Your task to perform on an android device: turn off wifi Image 0: 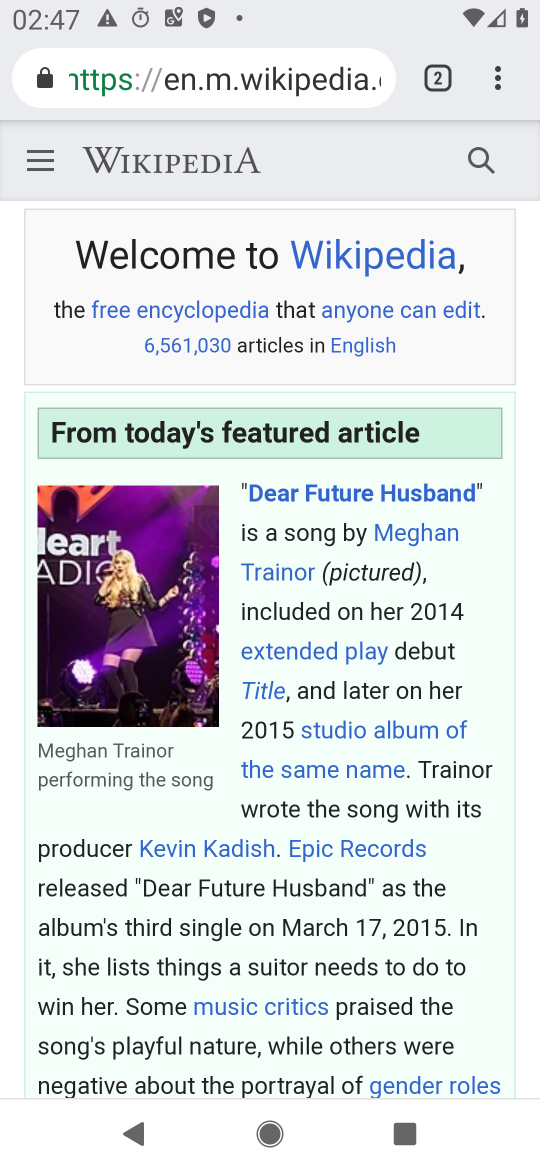
Step 0: press home button
Your task to perform on an android device: turn off wifi Image 1: 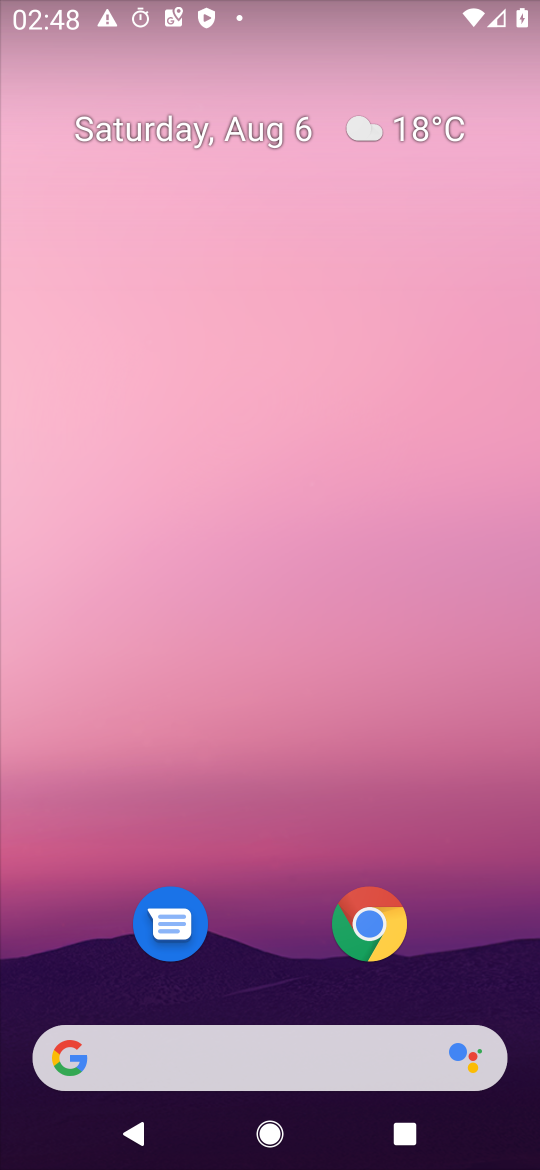
Step 1: drag from (264, 1050) to (210, 237)
Your task to perform on an android device: turn off wifi Image 2: 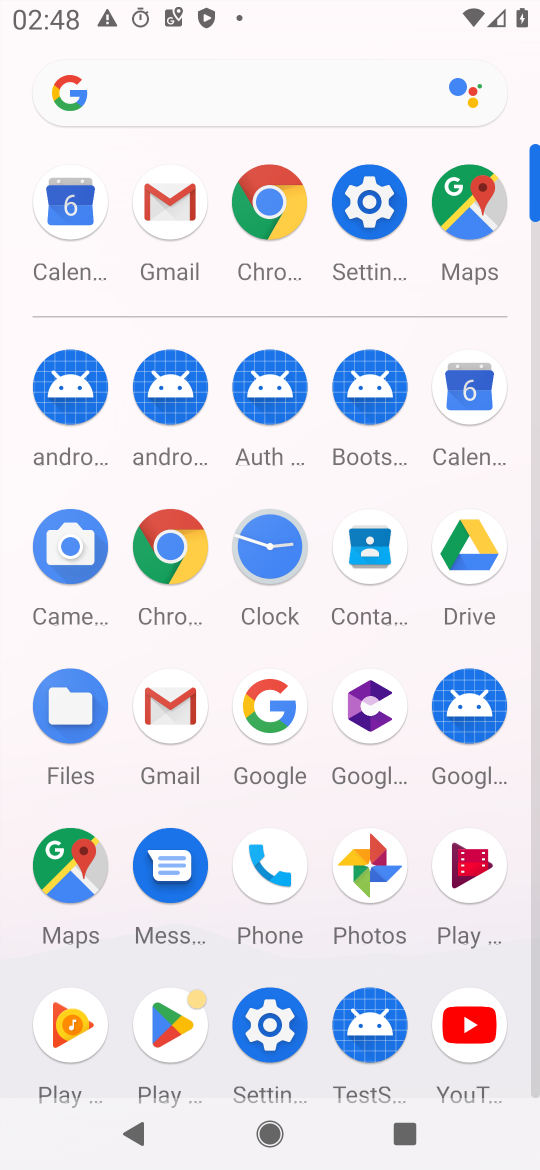
Step 2: click (359, 218)
Your task to perform on an android device: turn off wifi Image 3: 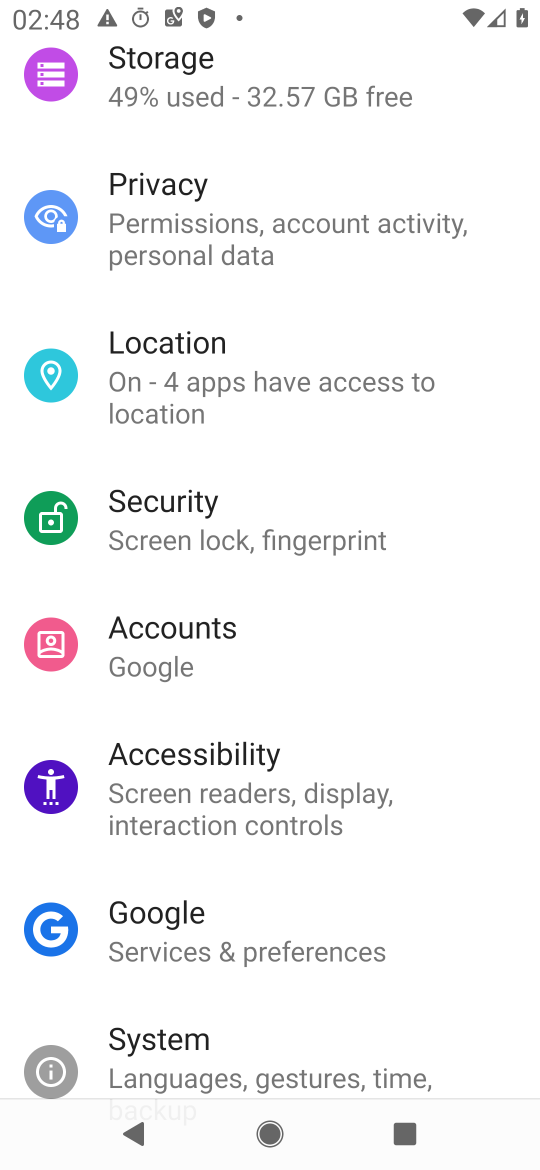
Step 3: drag from (500, 351) to (460, 722)
Your task to perform on an android device: turn off wifi Image 4: 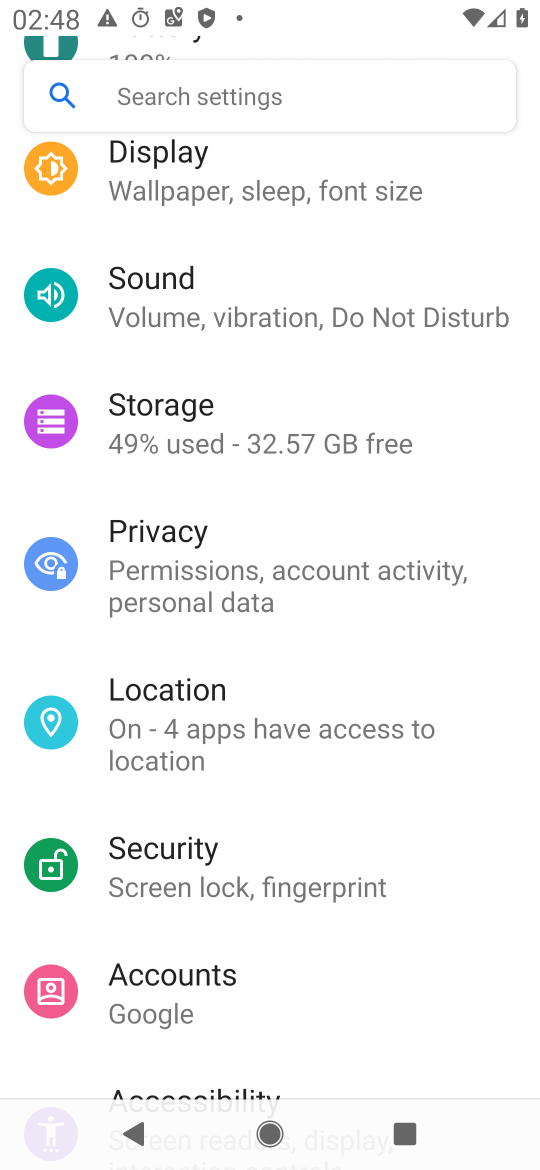
Step 4: drag from (478, 436) to (490, 861)
Your task to perform on an android device: turn off wifi Image 5: 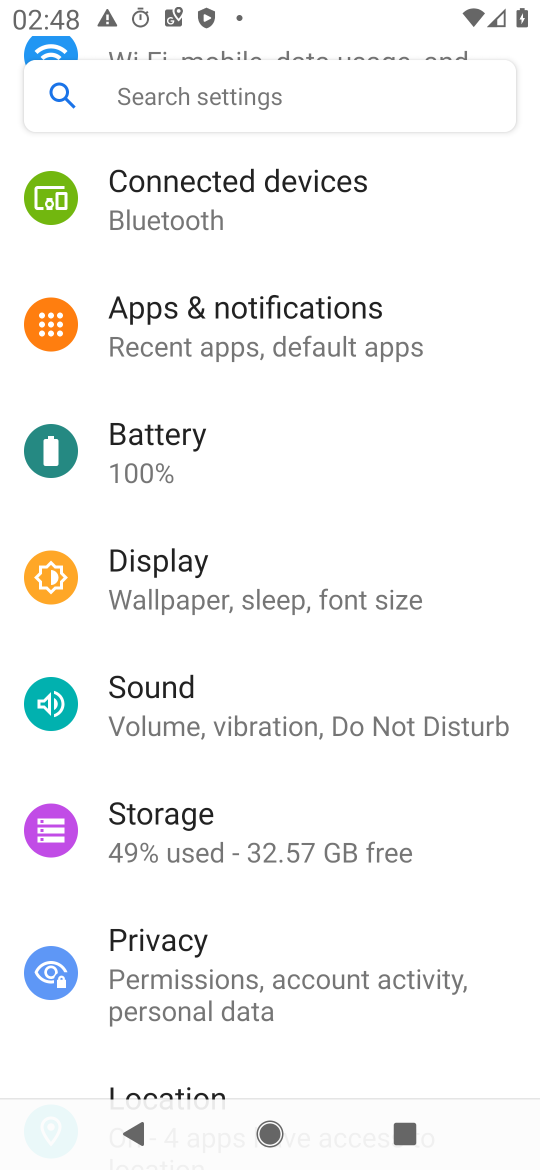
Step 5: drag from (498, 294) to (448, 679)
Your task to perform on an android device: turn off wifi Image 6: 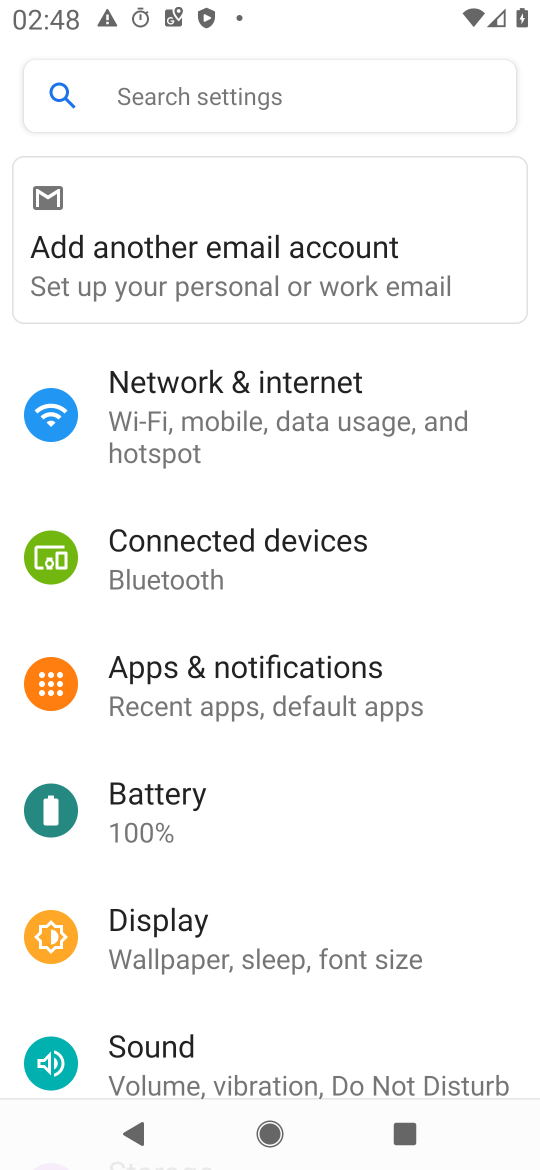
Step 6: click (227, 437)
Your task to perform on an android device: turn off wifi Image 7: 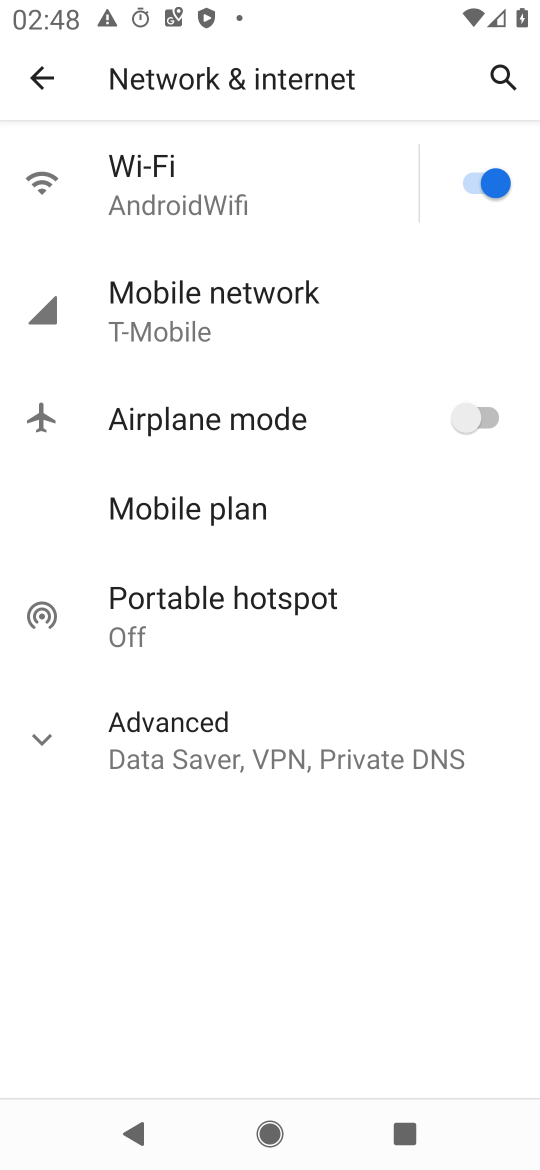
Step 7: click (477, 177)
Your task to perform on an android device: turn off wifi Image 8: 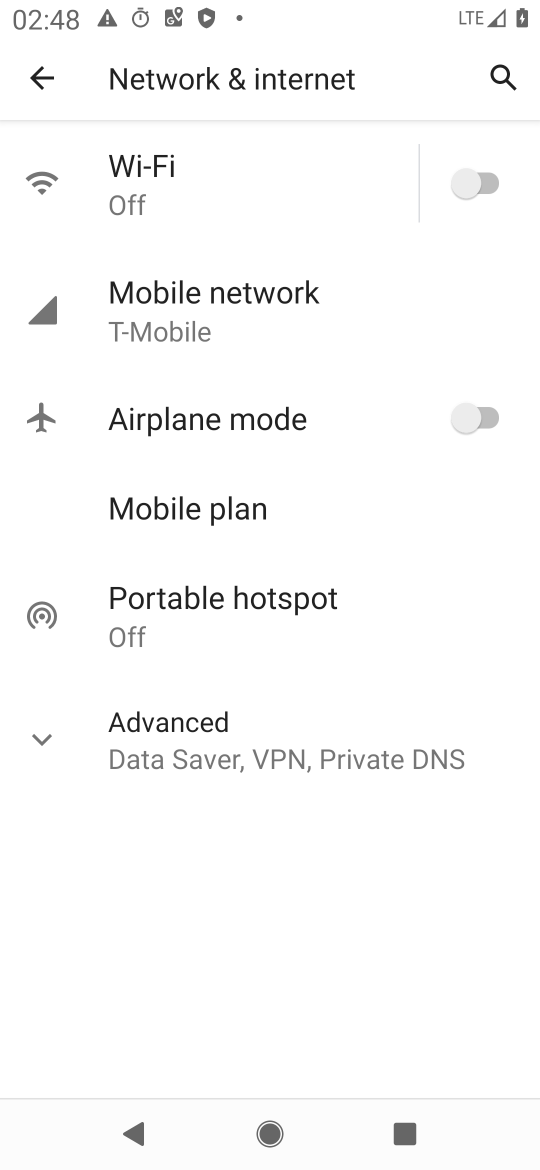
Step 8: task complete